Your task to perform on an android device: What's the weather going to be this weekend? Image 0: 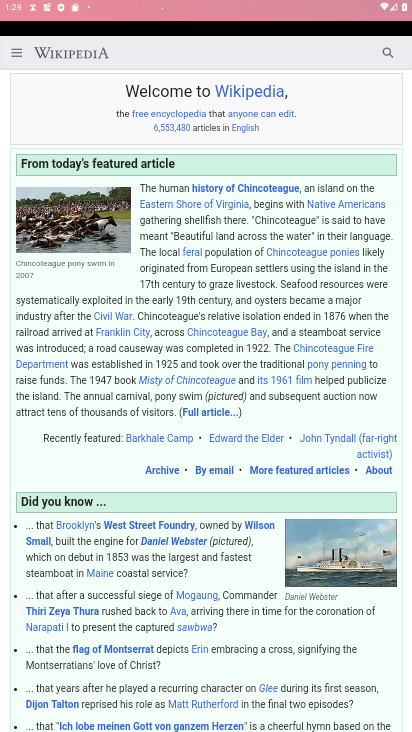
Step 0: press home button
Your task to perform on an android device: What's the weather going to be this weekend? Image 1: 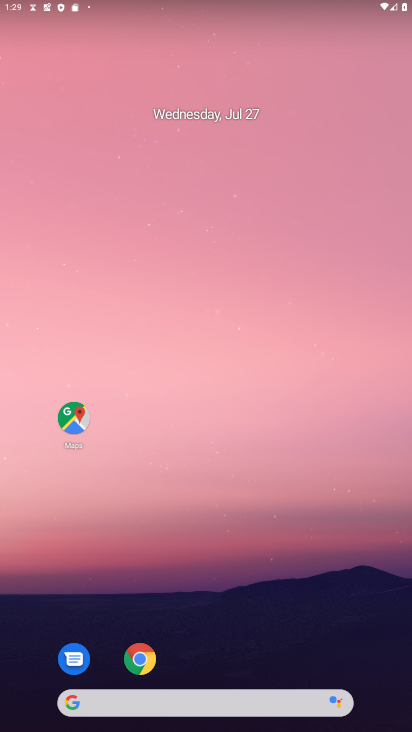
Step 1: drag from (213, 663) to (243, 28)
Your task to perform on an android device: What's the weather going to be this weekend? Image 2: 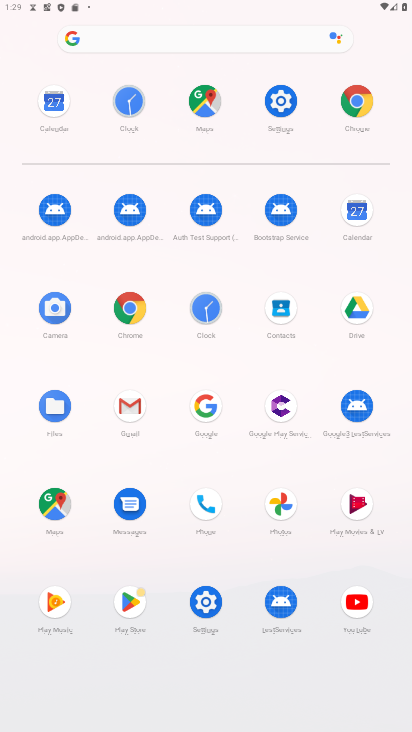
Step 2: click (126, 37)
Your task to perform on an android device: What's the weather going to be this weekend? Image 3: 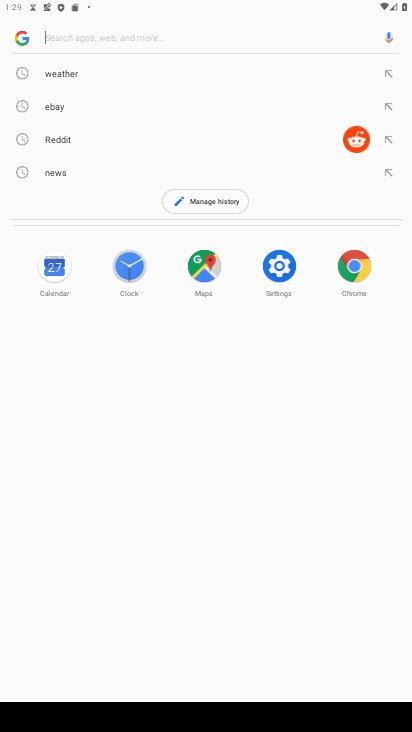
Step 3: click (89, 66)
Your task to perform on an android device: What's the weather going to be this weekend? Image 4: 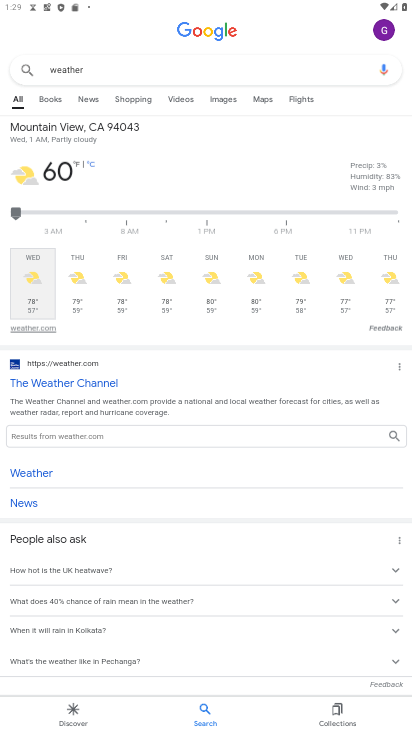
Step 4: click (152, 276)
Your task to perform on an android device: What's the weather going to be this weekend? Image 5: 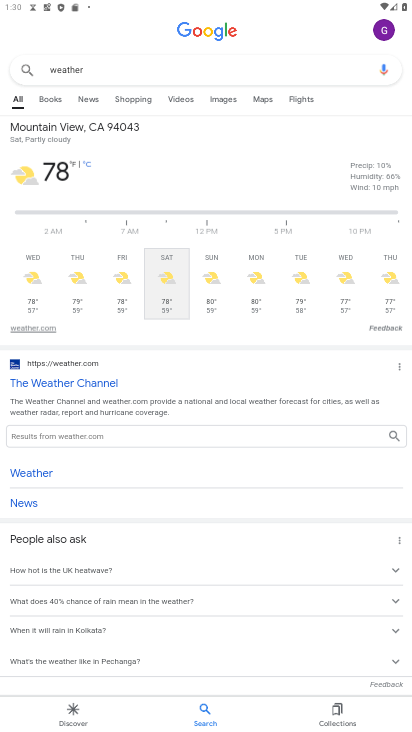
Step 5: click (217, 271)
Your task to perform on an android device: What's the weather going to be this weekend? Image 6: 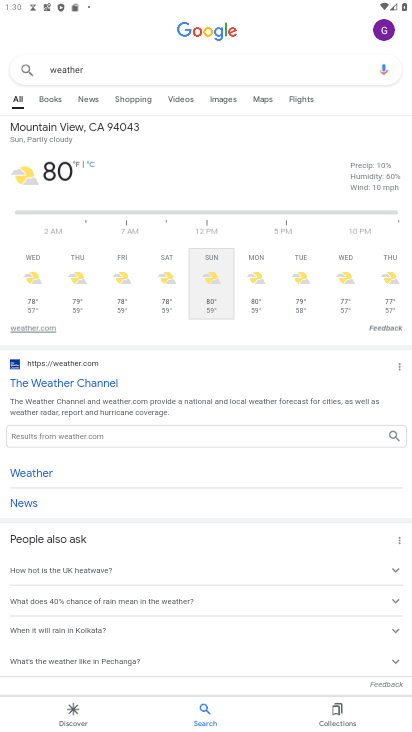
Step 6: task complete